Your task to perform on an android device: turn off translation in the chrome app Image 0: 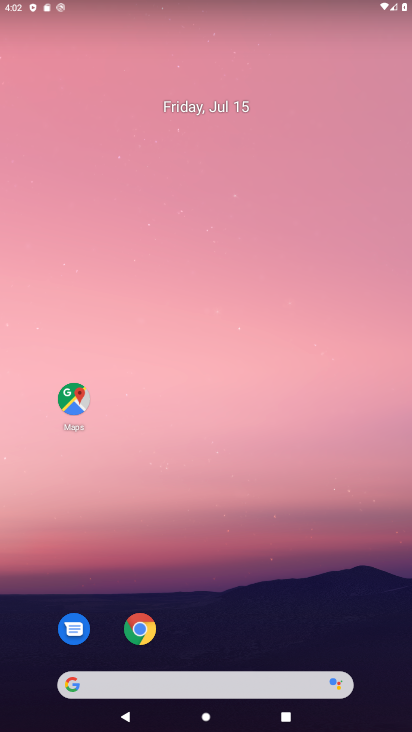
Step 0: drag from (197, 602) to (182, 83)
Your task to perform on an android device: turn off translation in the chrome app Image 1: 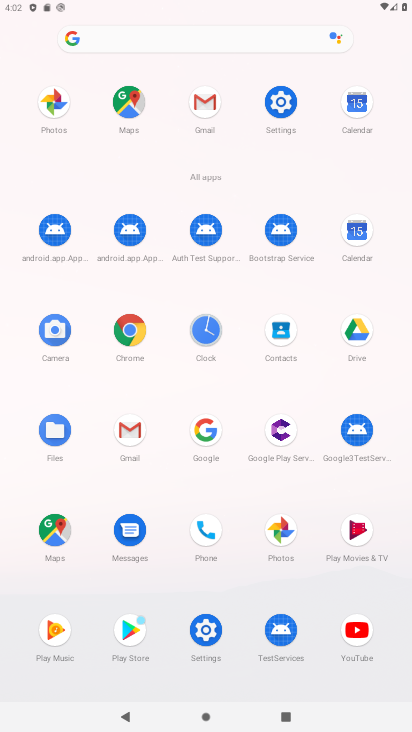
Step 1: click (125, 344)
Your task to perform on an android device: turn off translation in the chrome app Image 2: 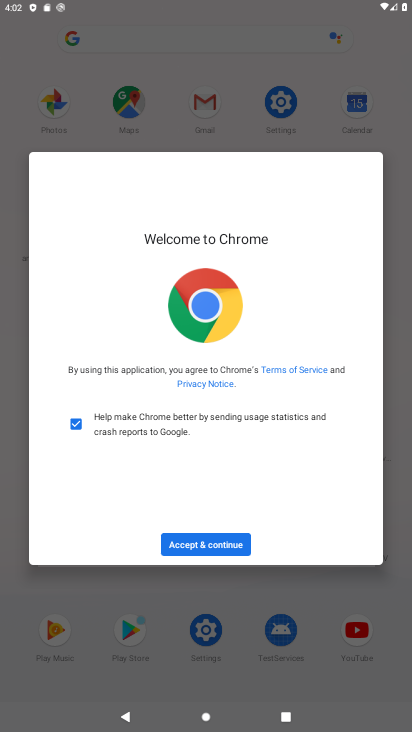
Step 2: click (185, 540)
Your task to perform on an android device: turn off translation in the chrome app Image 3: 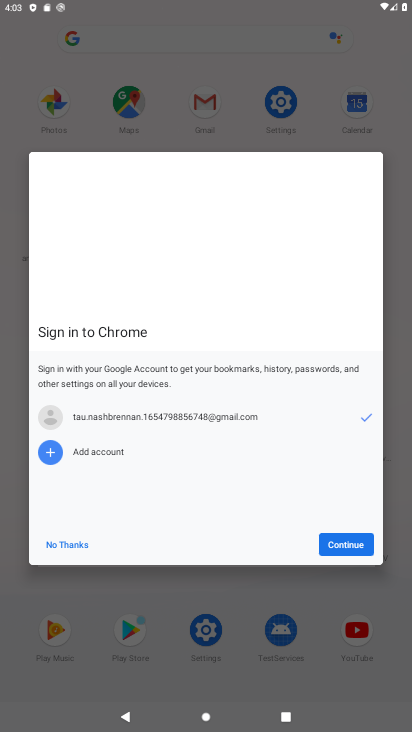
Step 3: click (361, 550)
Your task to perform on an android device: turn off translation in the chrome app Image 4: 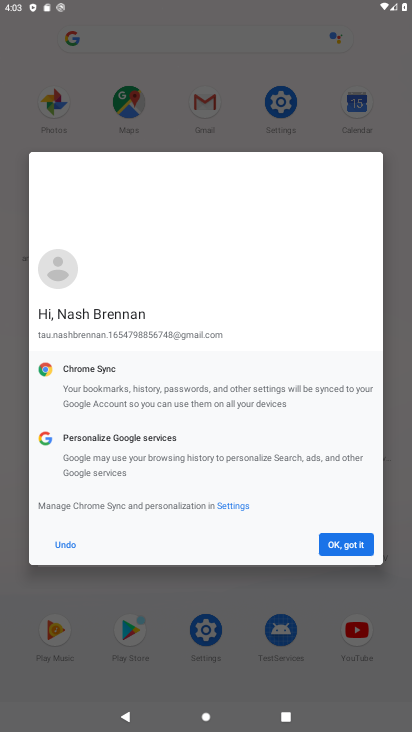
Step 4: click (329, 564)
Your task to perform on an android device: turn off translation in the chrome app Image 5: 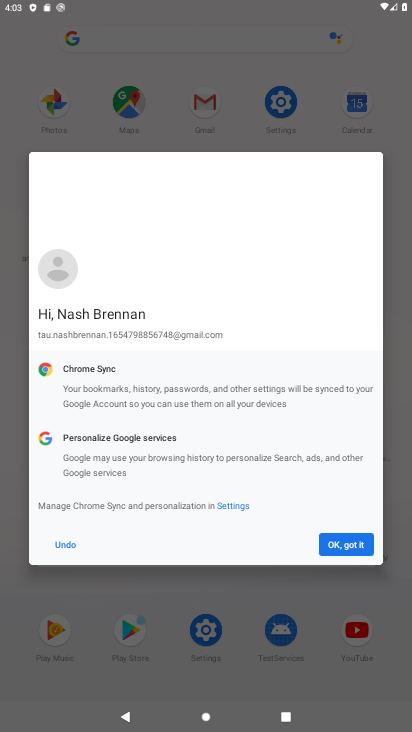
Step 5: click (332, 549)
Your task to perform on an android device: turn off translation in the chrome app Image 6: 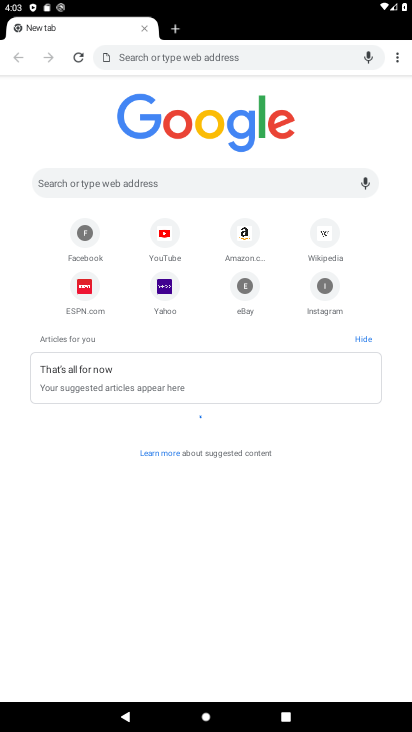
Step 6: click (397, 64)
Your task to perform on an android device: turn off translation in the chrome app Image 7: 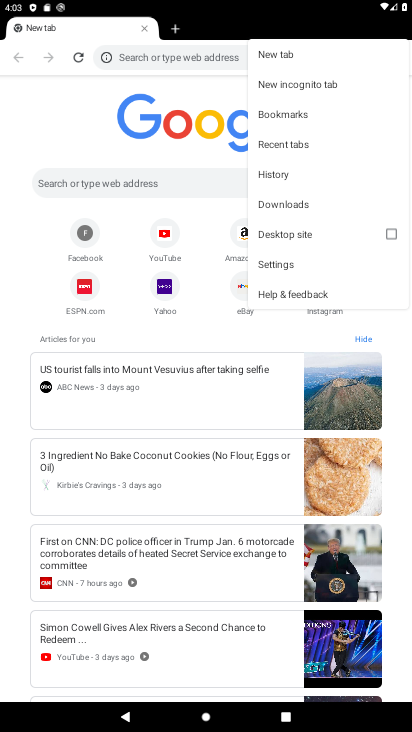
Step 7: click (281, 264)
Your task to perform on an android device: turn off translation in the chrome app Image 8: 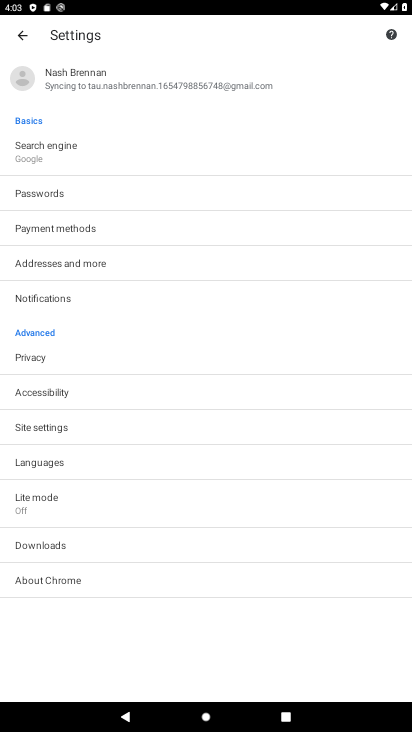
Step 8: click (45, 460)
Your task to perform on an android device: turn off translation in the chrome app Image 9: 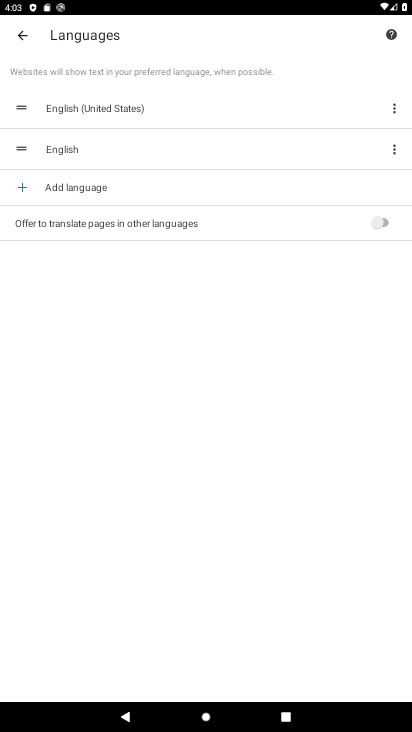
Step 9: task complete